Your task to perform on an android device: What's on the menu at Panera? Image 0: 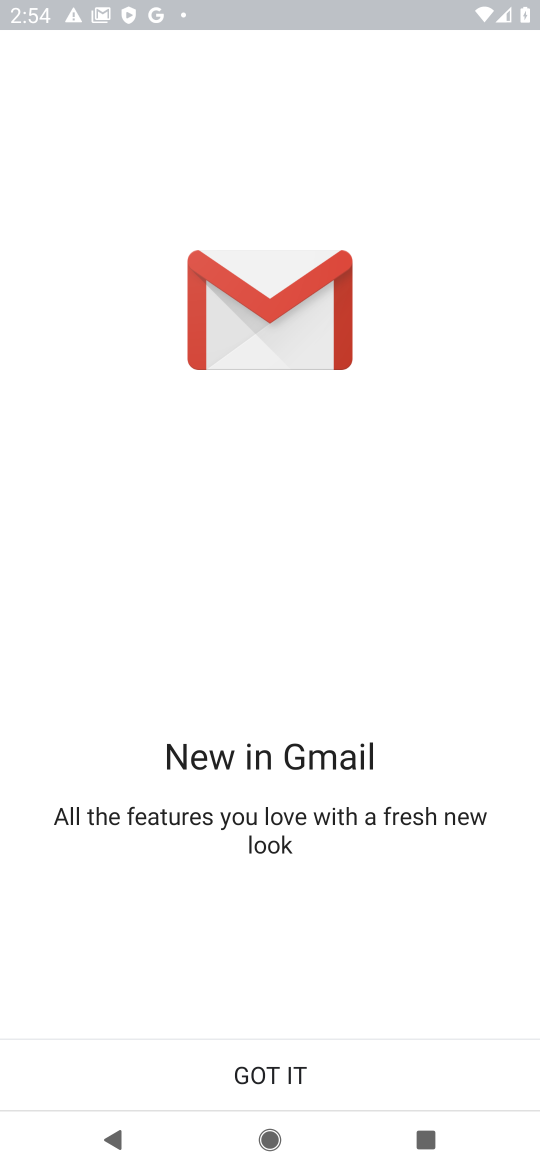
Step 0: press home button
Your task to perform on an android device: What's on the menu at Panera? Image 1: 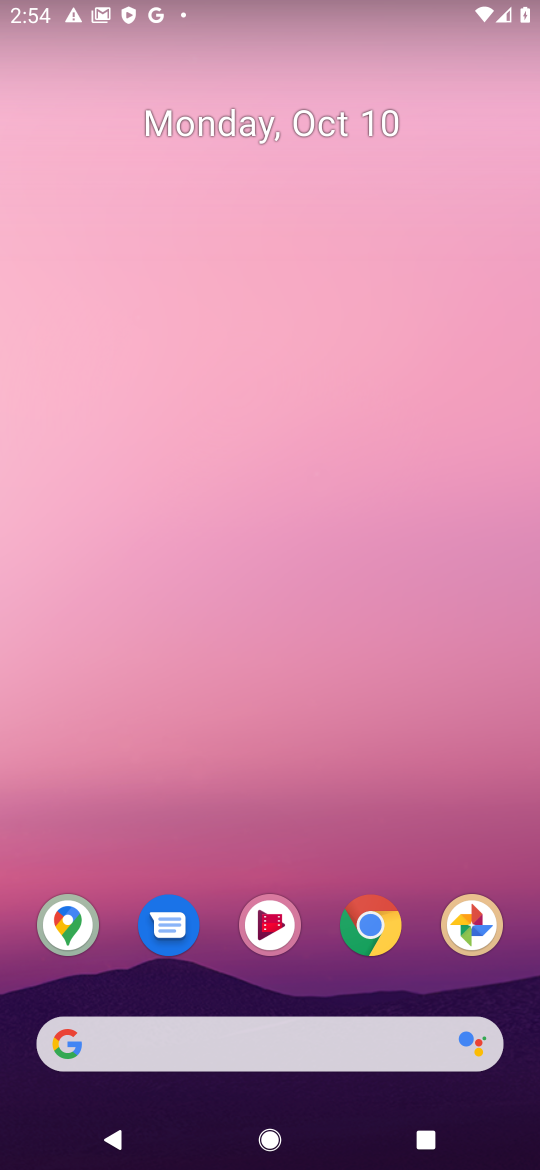
Step 1: click (370, 917)
Your task to perform on an android device: What's on the menu at Panera? Image 2: 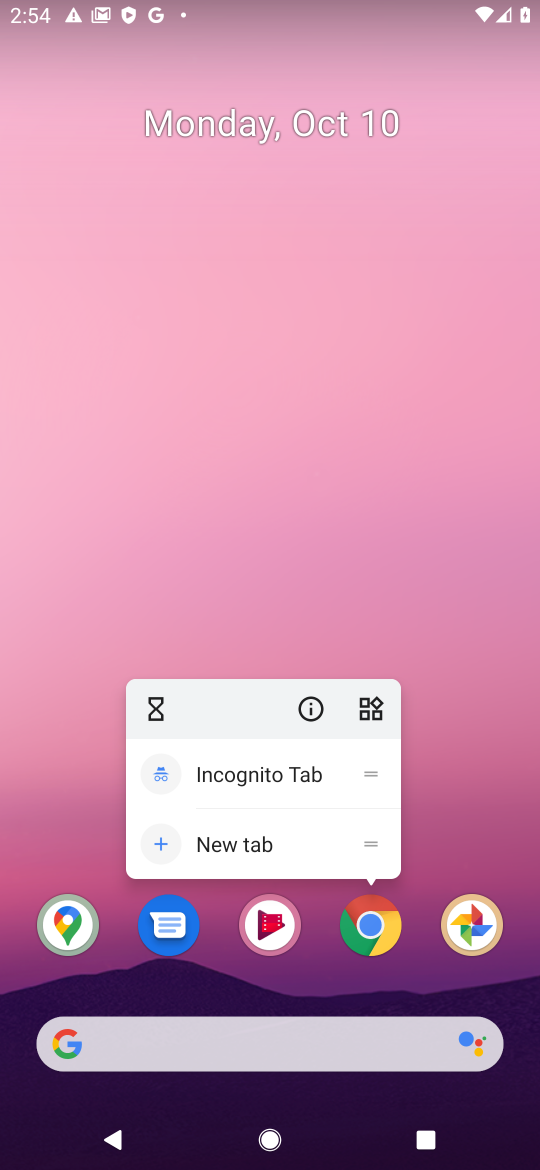
Step 2: click (355, 916)
Your task to perform on an android device: What's on the menu at Panera? Image 3: 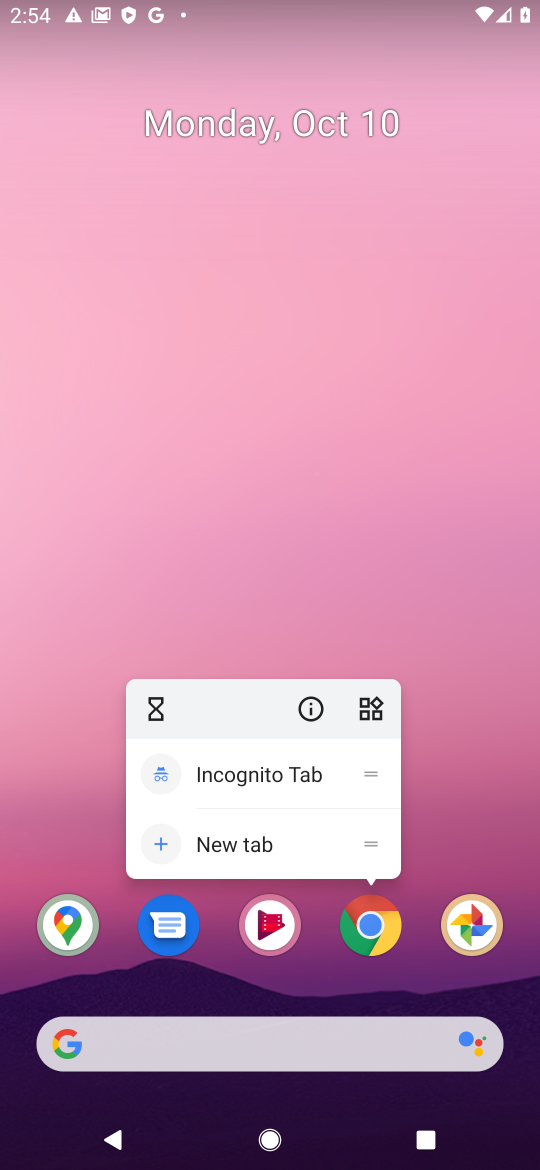
Step 3: click (355, 916)
Your task to perform on an android device: What's on the menu at Panera? Image 4: 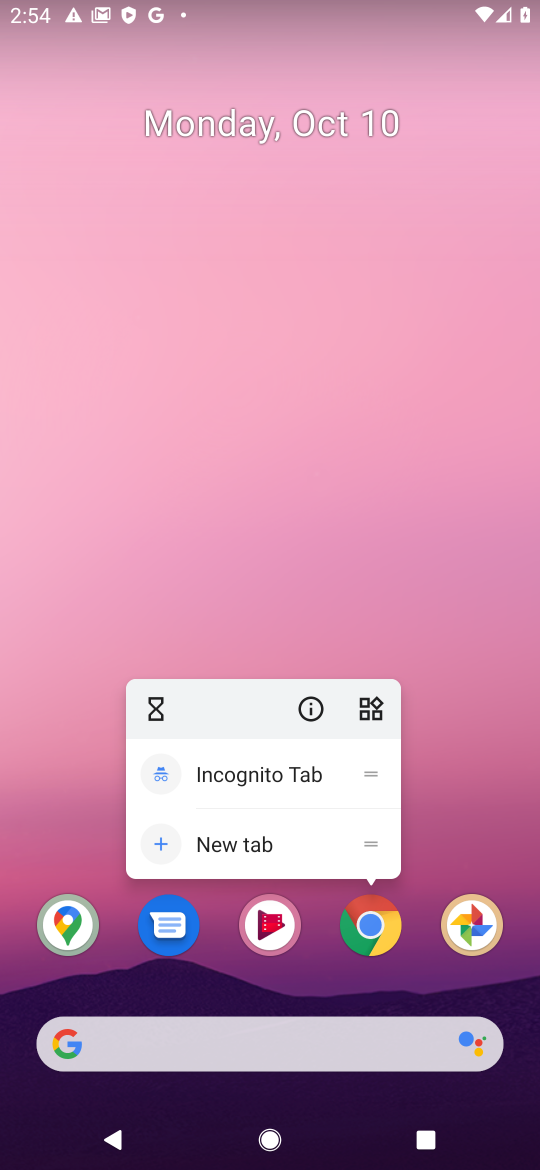
Step 4: click (355, 916)
Your task to perform on an android device: What's on the menu at Panera? Image 5: 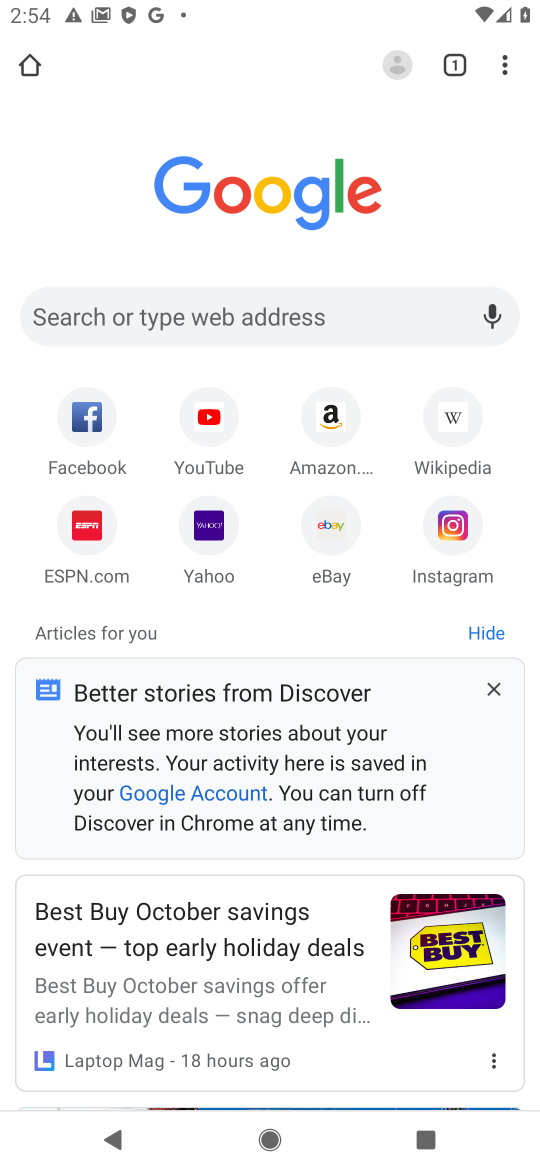
Step 5: drag from (413, 1168) to (495, 1142)
Your task to perform on an android device: What's on the menu at Panera? Image 6: 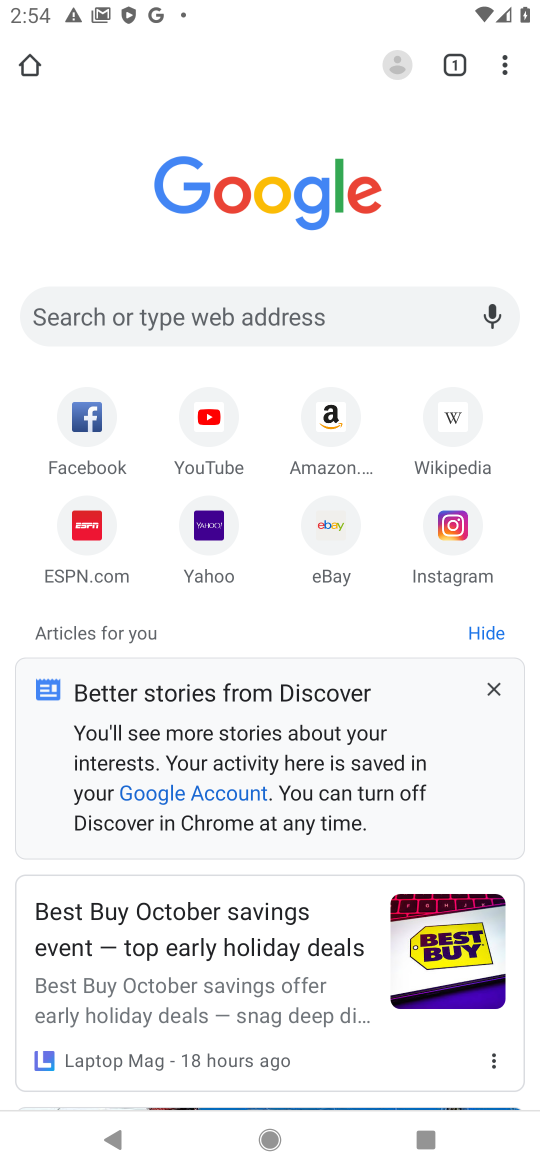
Step 6: click (296, 319)
Your task to perform on an android device: What's on the menu at Panera? Image 7: 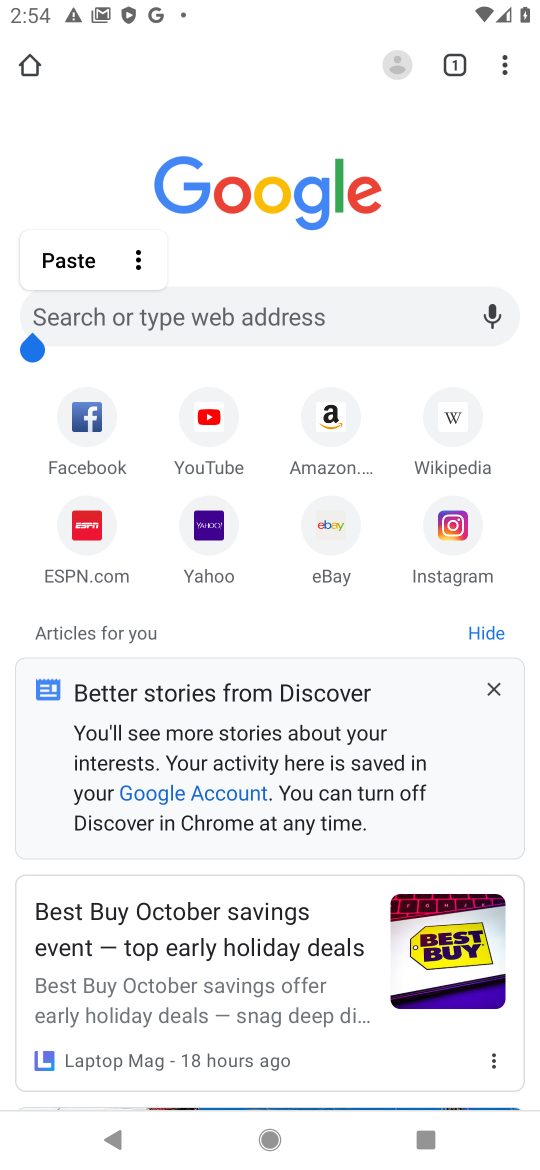
Step 7: type "What's on the menu at Panera?"
Your task to perform on an android device: What's on the menu at Panera? Image 8: 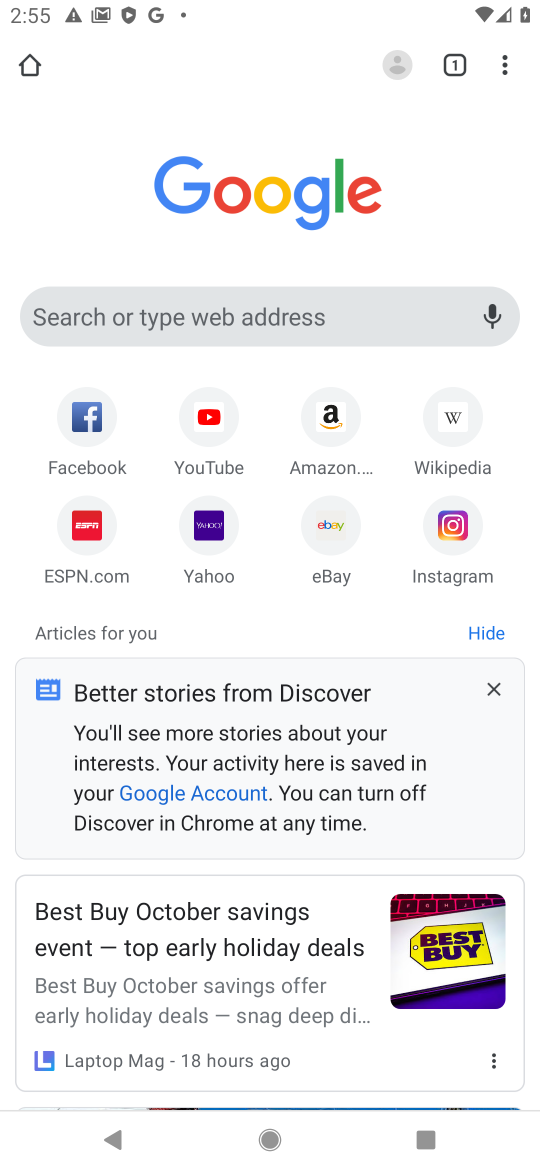
Step 8: click (248, 325)
Your task to perform on an android device: What's on the menu at Panera? Image 9: 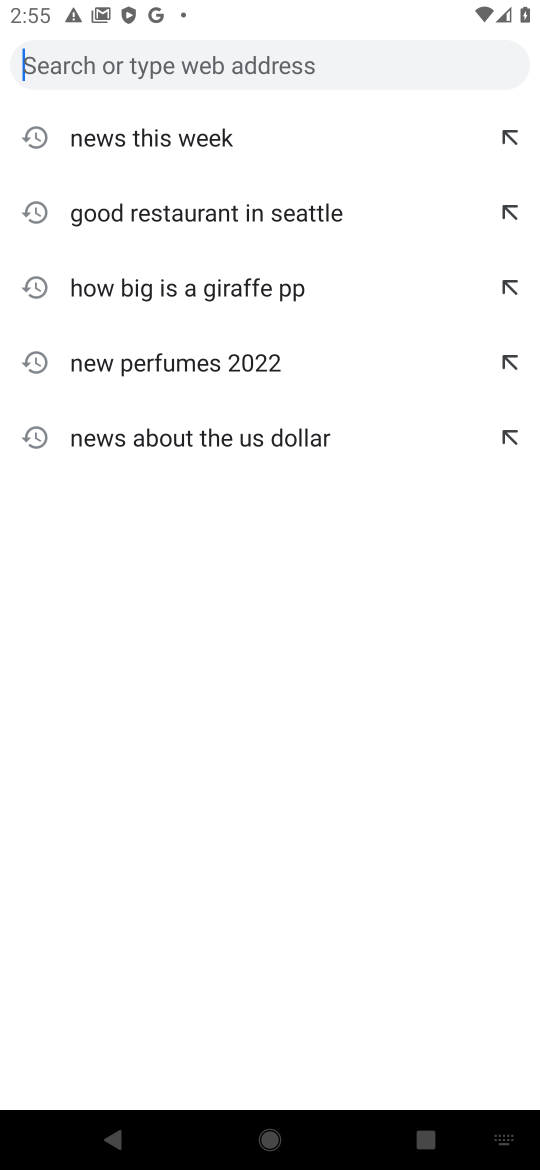
Step 9: type "What's on the menu at Panera?"
Your task to perform on an android device: What's on the menu at Panera? Image 10: 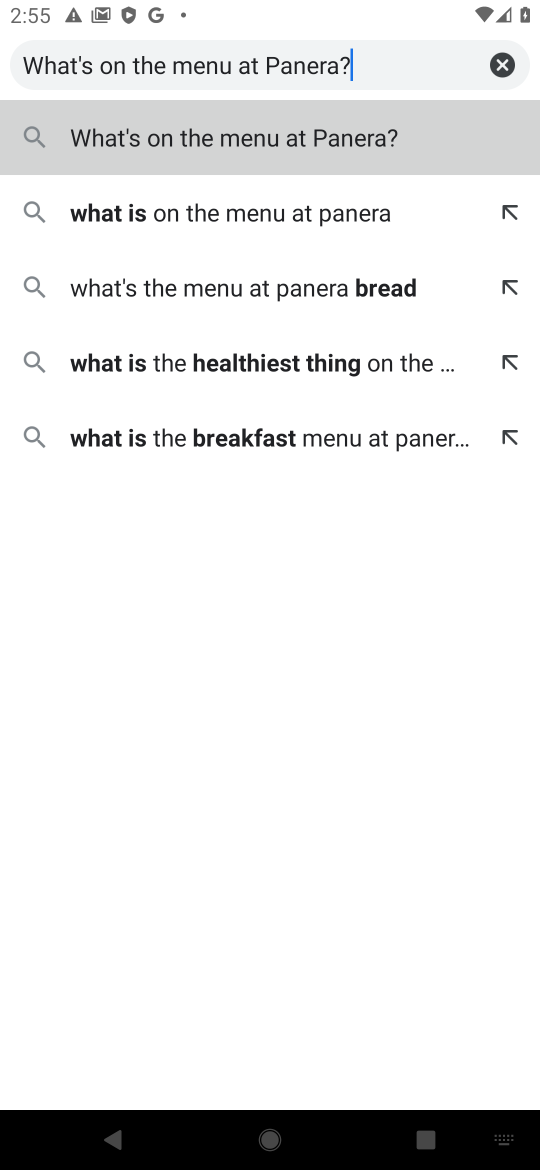
Step 10: click (246, 146)
Your task to perform on an android device: What's on the menu at Panera? Image 11: 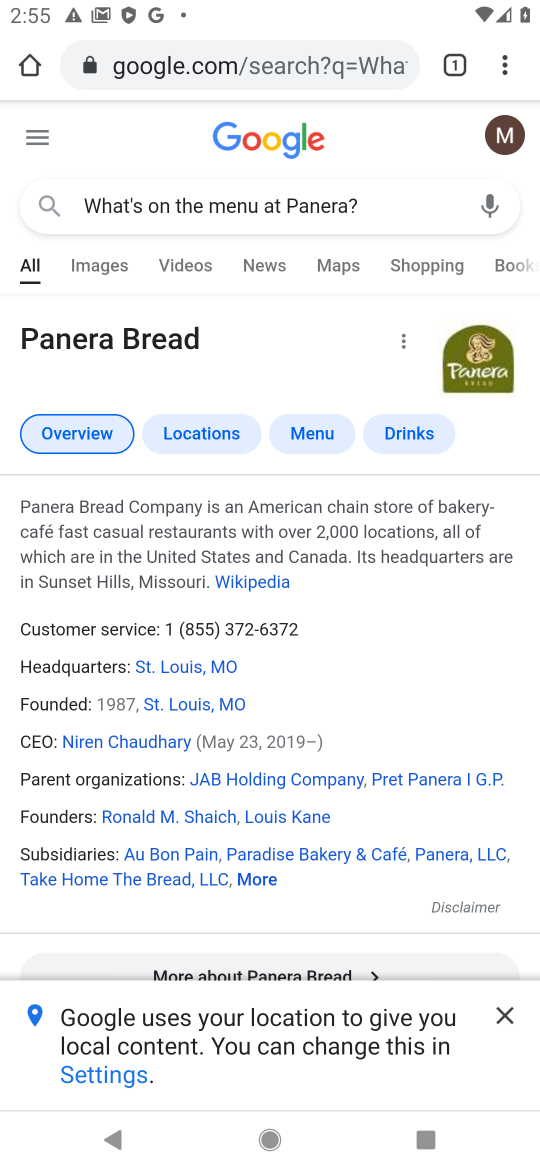
Step 11: task complete